Your task to perform on an android device: open device folders in google photos Image 0: 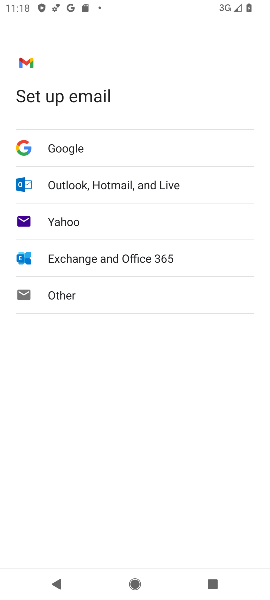
Step 0: press back button
Your task to perform on an android device: open device folders in google photos Image 1: 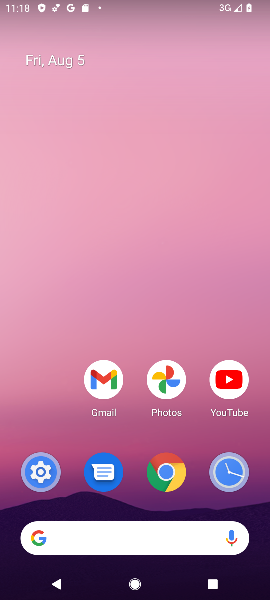
Step 1: click (169, 380)
Your task to perform on an android device: open device folders in google photos Image 2: 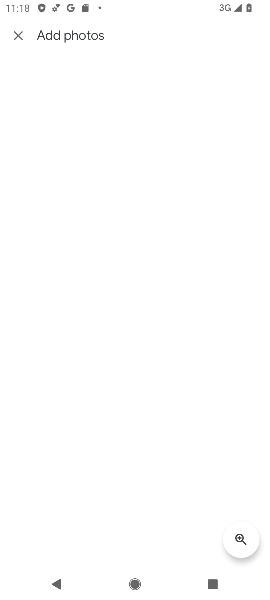
Step 2: click (16, 38)
Your task to perform on an android device: open device folders in google photos Image 3: 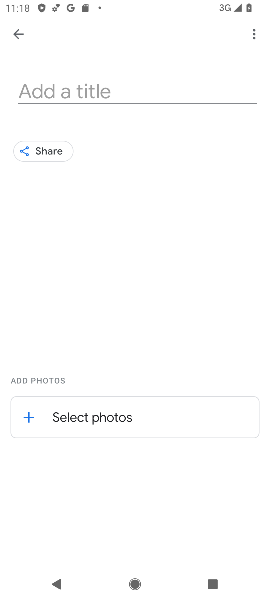
Step 3: click (16, 37)
Your task to perform on an android device: open device folders in google photos Image 4: 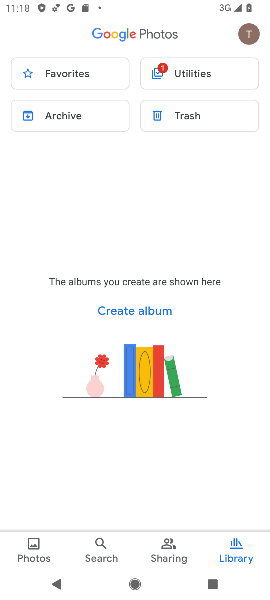
Step 4: click (161, 553)
Your task to perform on an android device: open device folders in google photos Image 5: 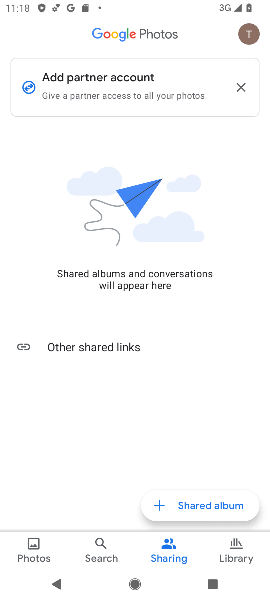
Step 5: click (127, 552)
Your task to perform on an android device: open device folders in google photos Image 6: 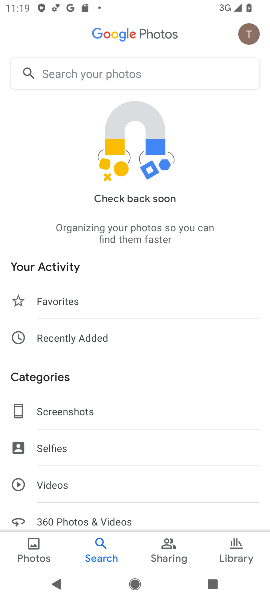
Step 6: task complete